Your task to perform on an android device: Open the map Image 0: 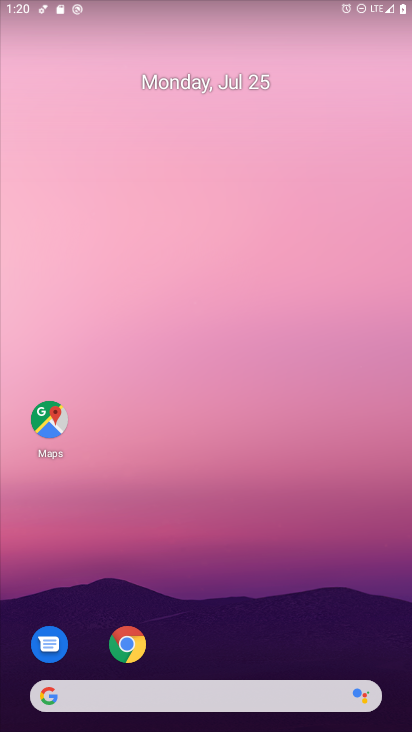
Step 0: click (44, 420)
Your task to perform on an android device: Open the map Image 1: 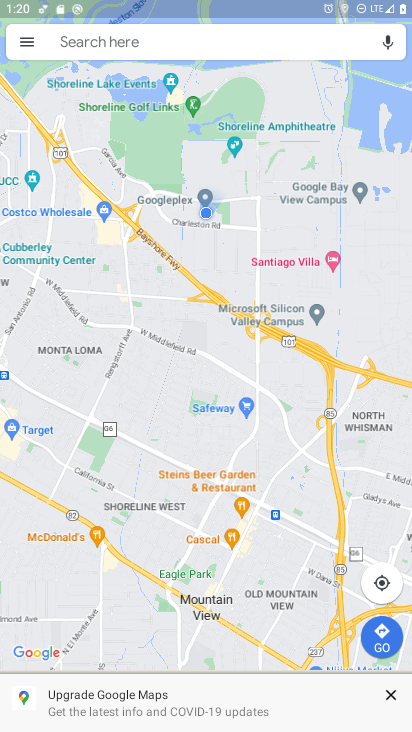
Step 1: task complete